Your task to perform on an android device: delete the emails in spam in the gmail app Image 0: 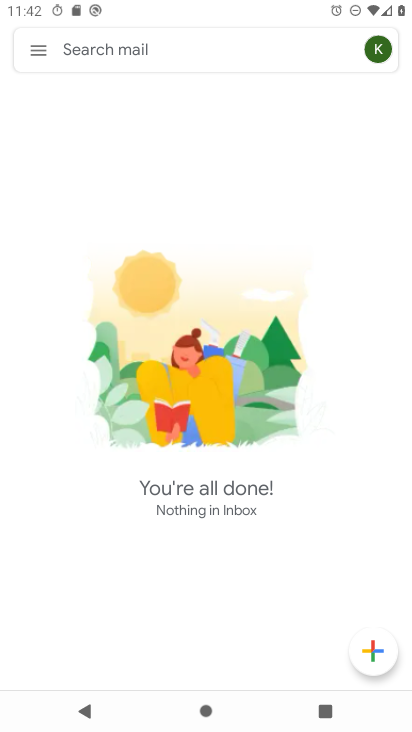
Step 0: press back button
Your task to perform on an android device: delete the emails in spam in the gmail app Image 1: 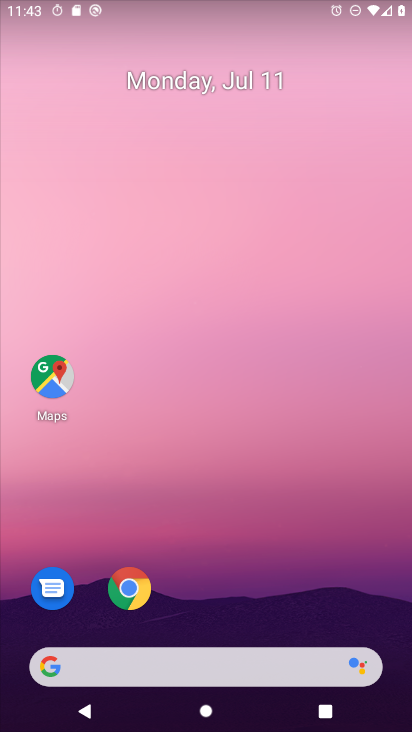
Step 1: drag from (209, 633) to (294, 75)
Your task to perform on an android device: delete the emails in spam in the gmail app Image 2: 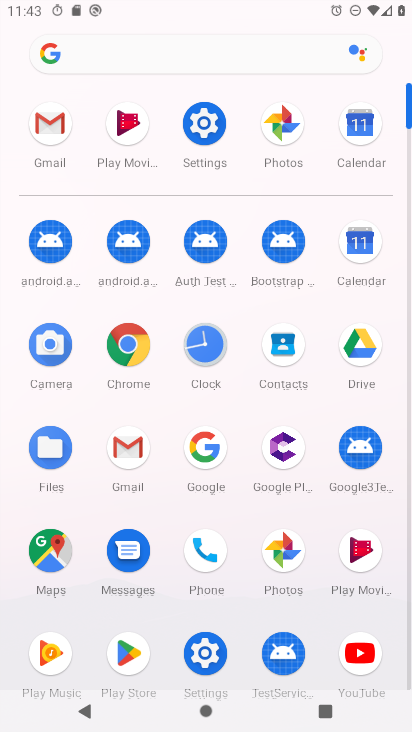
Step 2: click (43, 120)
Your task to perform on an android device: delete the emails in spam in the gmail app Image 3: 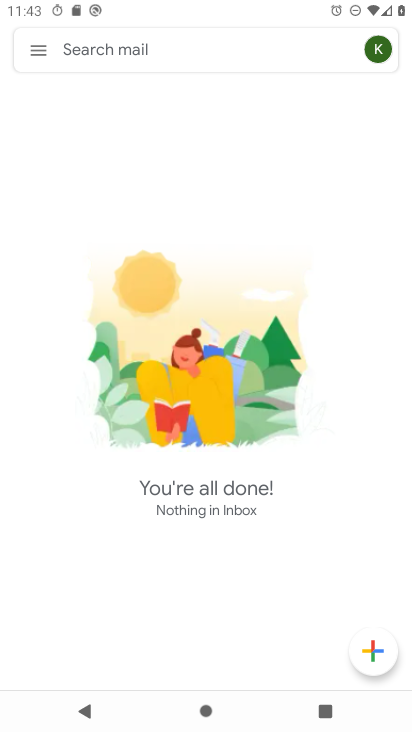
Step 3: click (38, 49)
Your task to perform on an android device: delete the emails in spam in the gmail app Image 4: 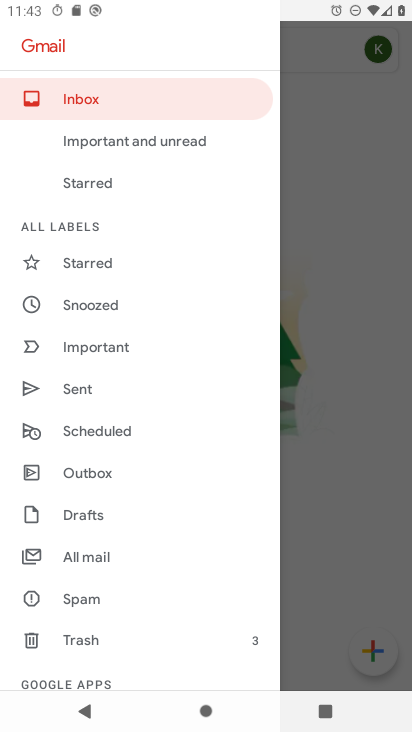
Step 4: click (75, 604)
Your task to perform on an android device: delete the emails in spam in the gmail app Image 5: 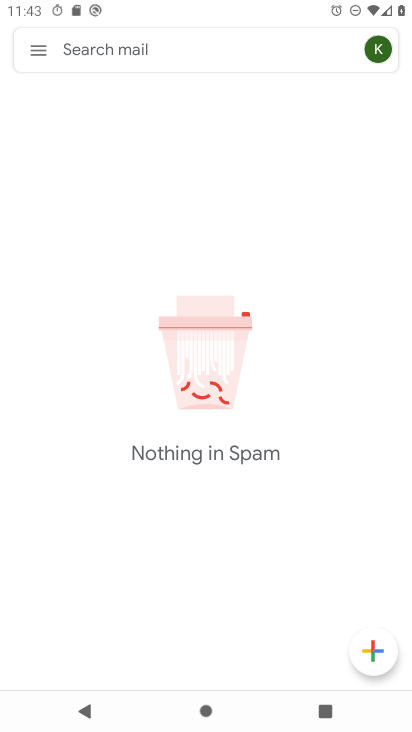
Step 5: task complete